Your task to perform on an android device: add a contact Image 0: 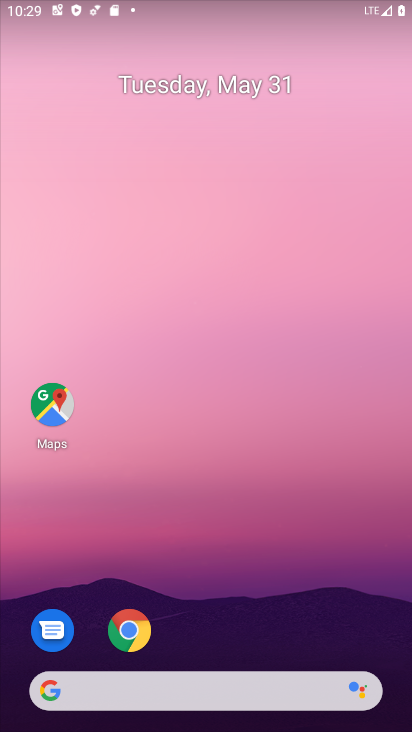
Step 0: drag from (254, 647) to (254, 147)
Your task to perform on an android device: add a contact Image 1: 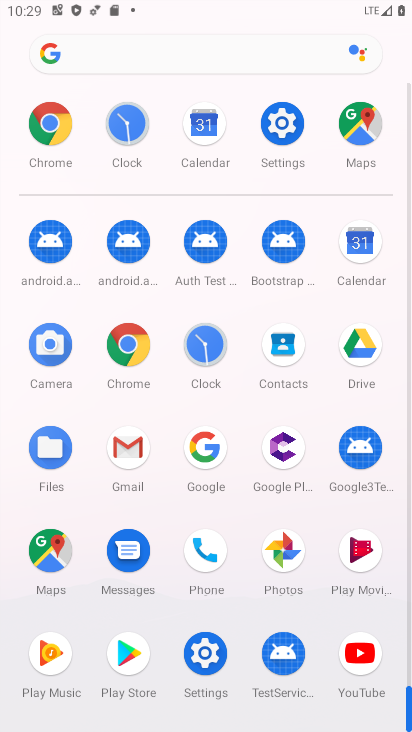
Step 1: click (287, 361)
Your task to perform on an android device: add a contact Image 2: 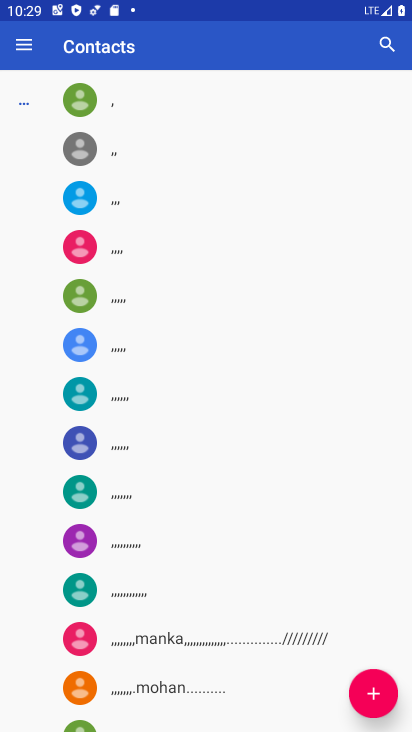
Step 2: click (386, 699)
Your task to perform on an android device: add a contact Image 3: 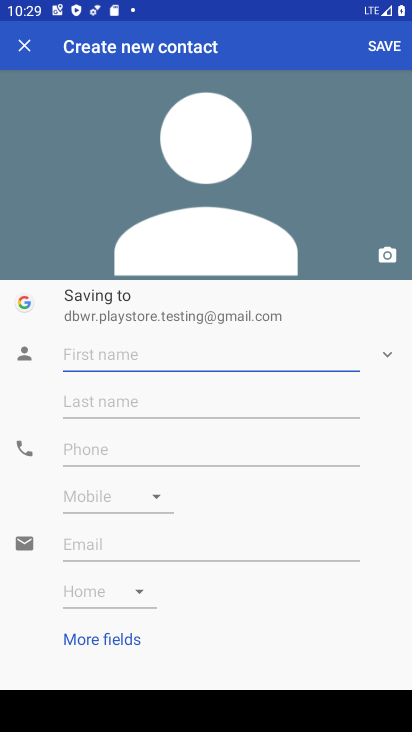
Step 3: type "jhvjvjg"
Your task to perform on an android device: add a contact Image 4: 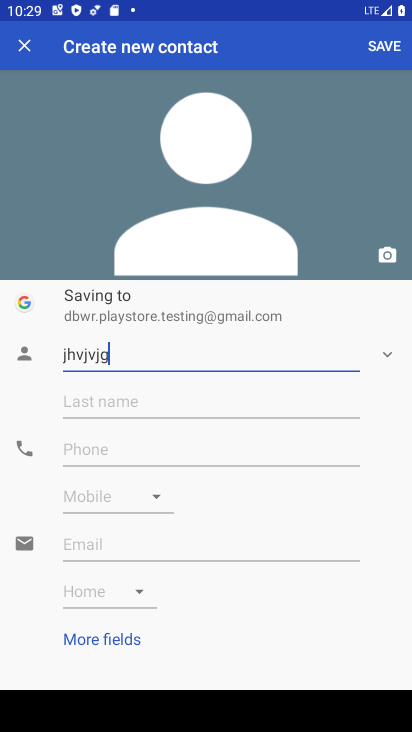
Step 4: click (164, 455)
Your task to perform on an android device: add a contact Image 5: 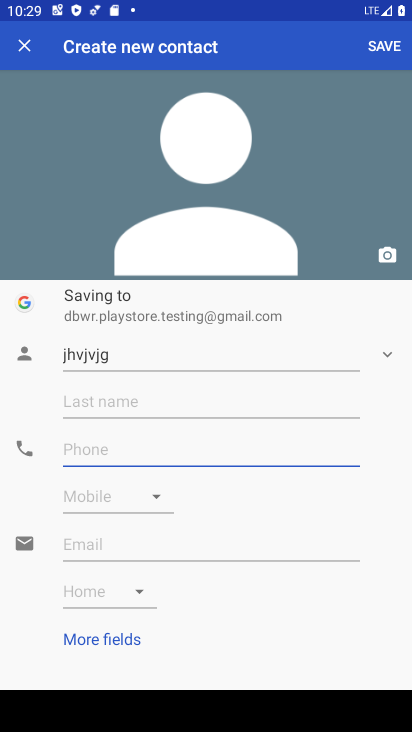
Step 5: type "987645778"
Your task to perform on an android device: add a contact Image 6: 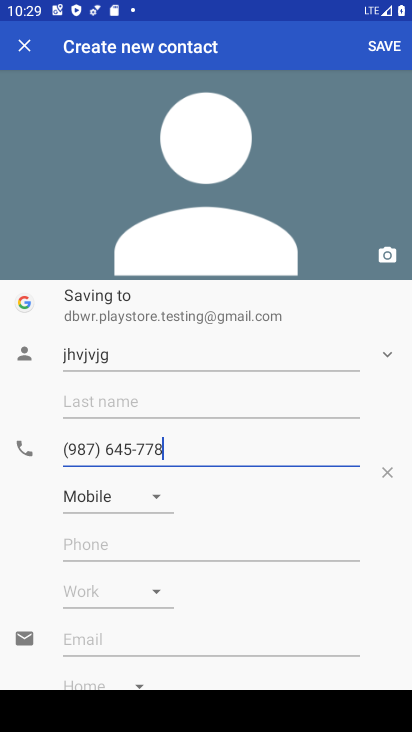
Step 6: click (390, 46)
Your task to perform on an android device: add a contact Image 7: 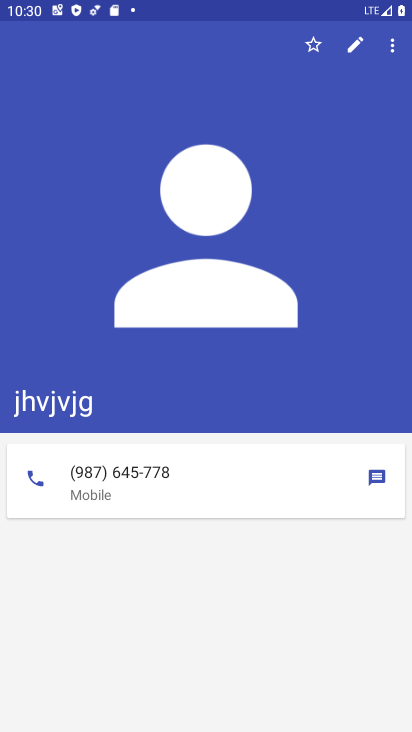
Step 7: task complete